Your task to perform on an android device: Open Yahoo.com Image 0: 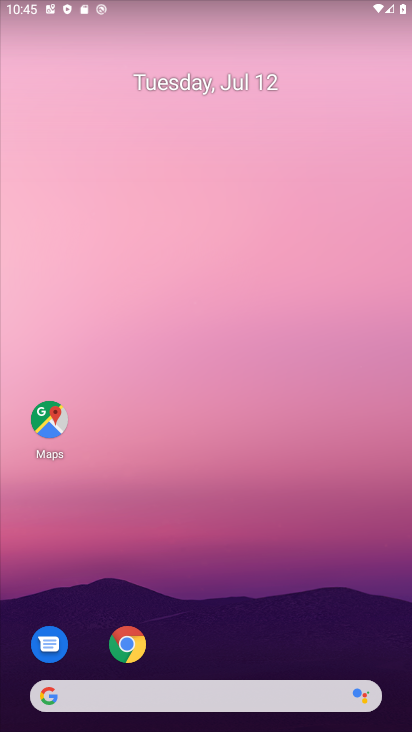
Step 0: press home button
Your task to perform on an android device: Open Yahoo.com Image 1: 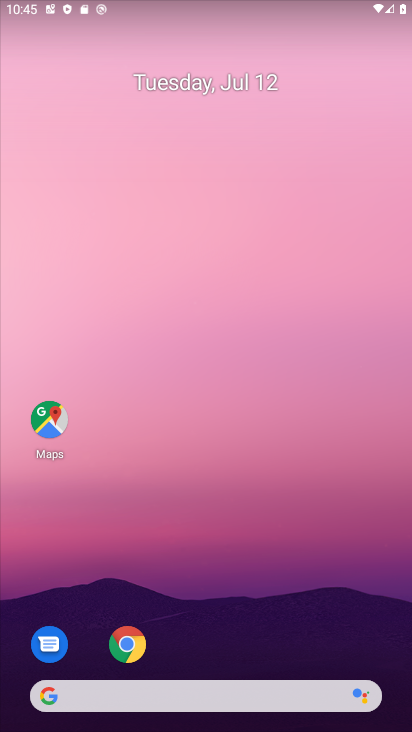
Step 1: press home button
Your task to perform on an android device: Open Yahoo.com Image 2: 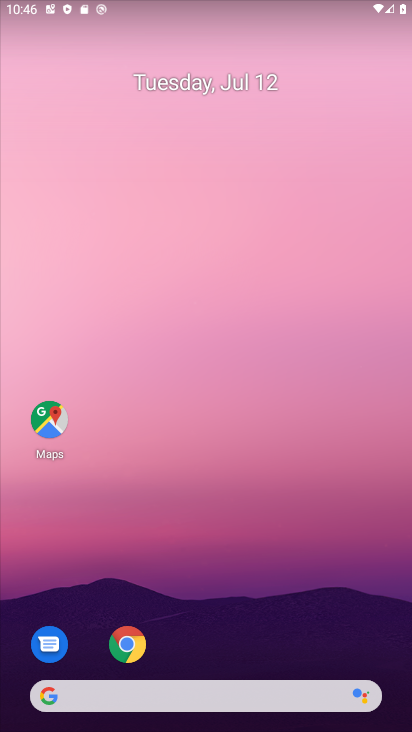
Step 2: click (126, 639)
Your task to perform on an android device: Open Yahoo.com Image 3: 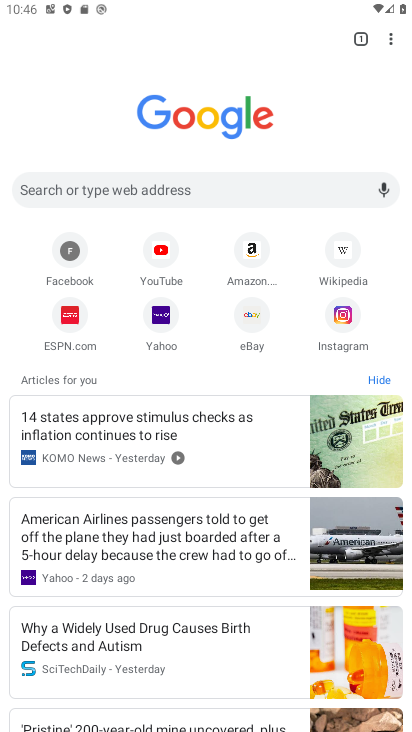
Step 3: click (160, 311)
Your task to perform on an android device: Open Yahoo.com Image 4: 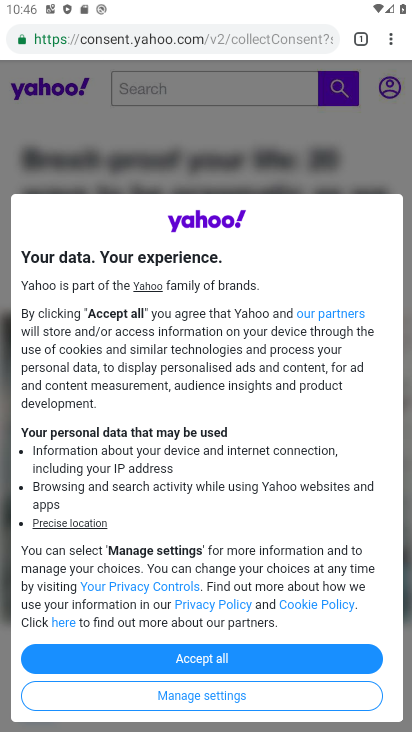
Step 4: click (211, 654)
Your task to perform on an android device: Open Yahoo.com Image 5: 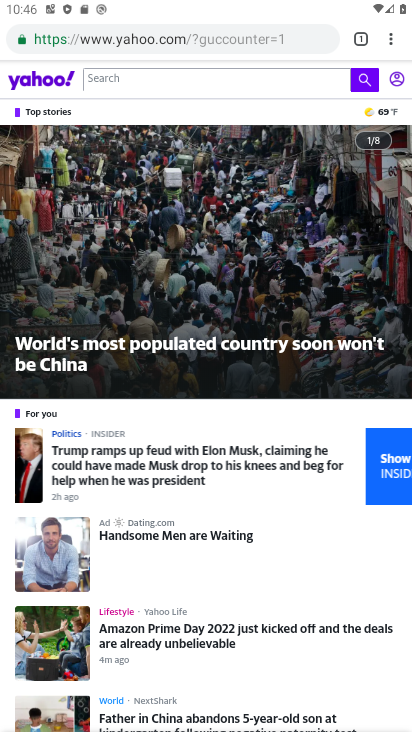
Step 5: task complete